Your task to perform on an android device: What's the weather? Image 0: 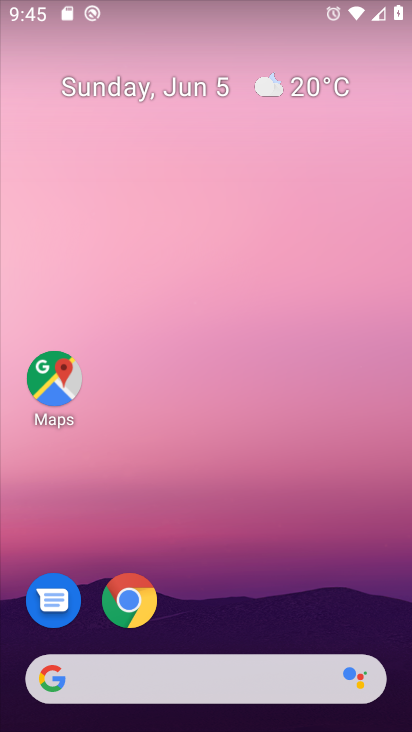
Step 0: click (270, 75)
Your task to perform on an android device: What's the weather? Image 1: 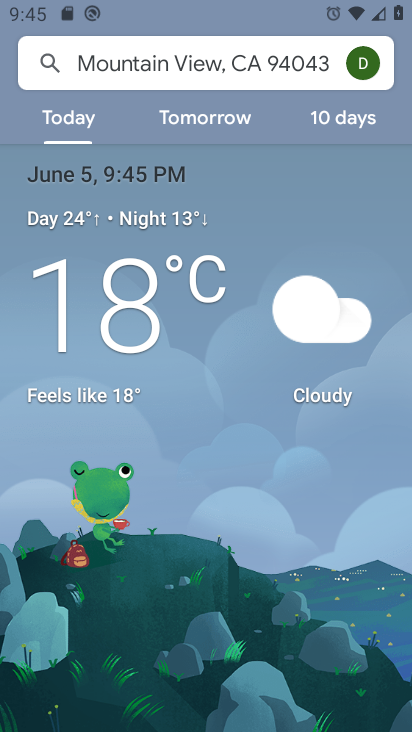
Step 1: task complete